Your task to perform on an android device: open chrome and create a bookmark for the current page Image 0: 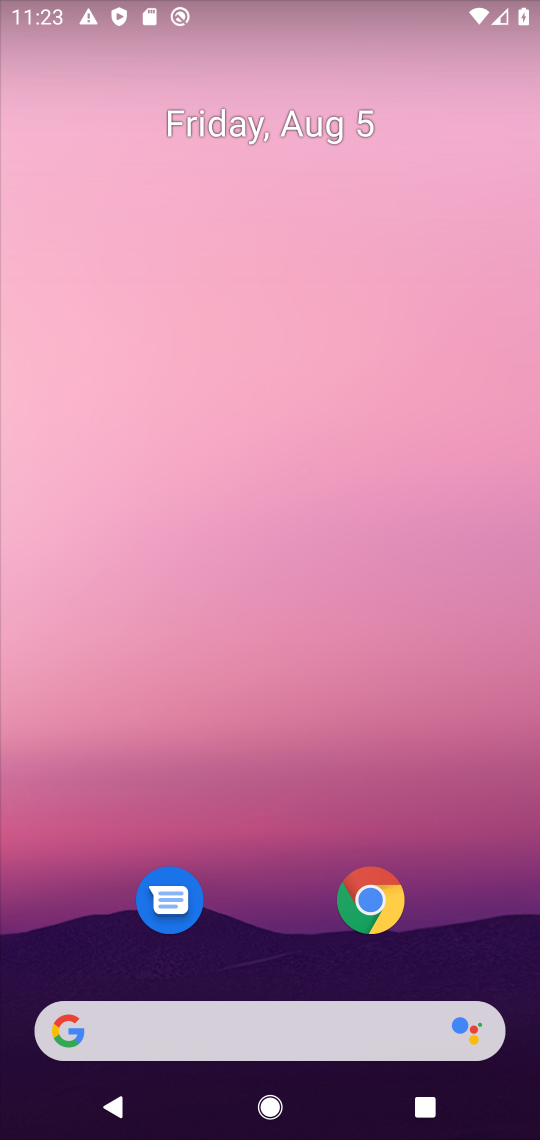
Step 0: drag from (254, 854) to (285, 107)
Your task to perform on an android device: open chrome and create a bookmark for the current page Image 1: 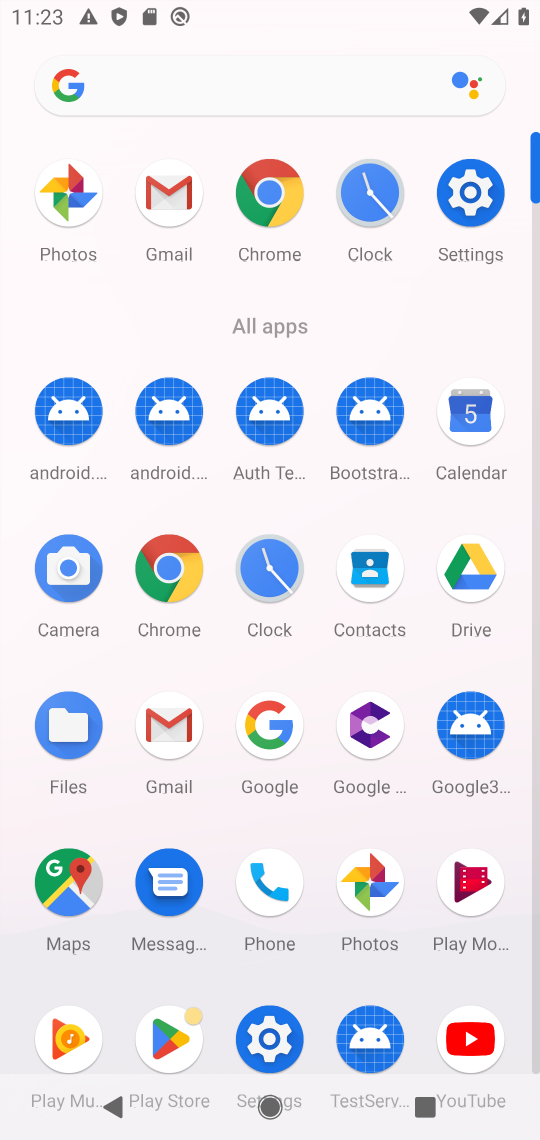
Step 1: click (167, 568)
Your task to perform on an android device: open chrome and create a bookmark for the current page Image 2: 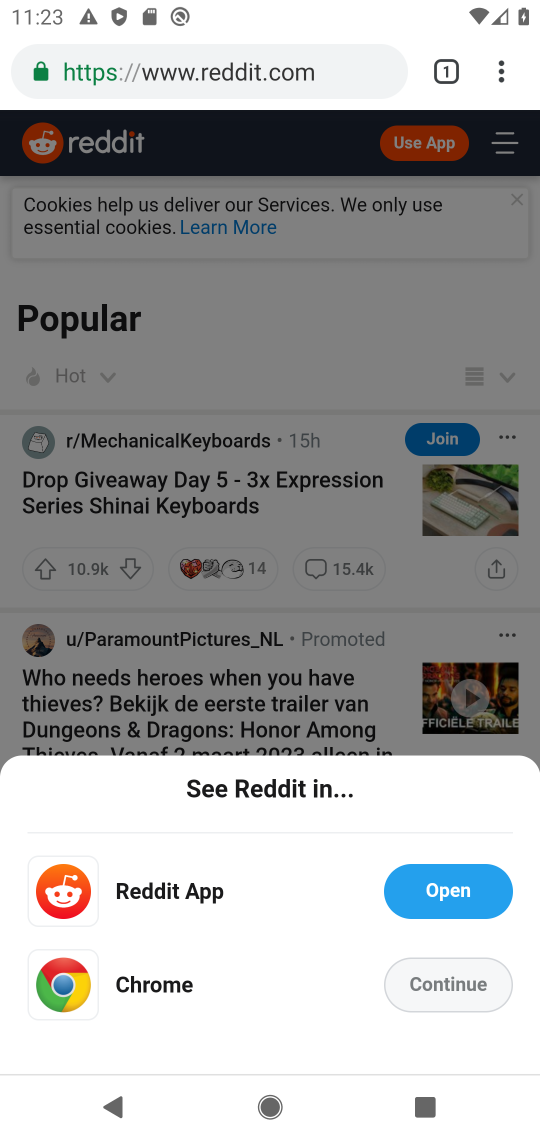
Step 2: click (498, 82)
Your task to perform on an android device: open chrome and create a bookmark for the current page Image 3: 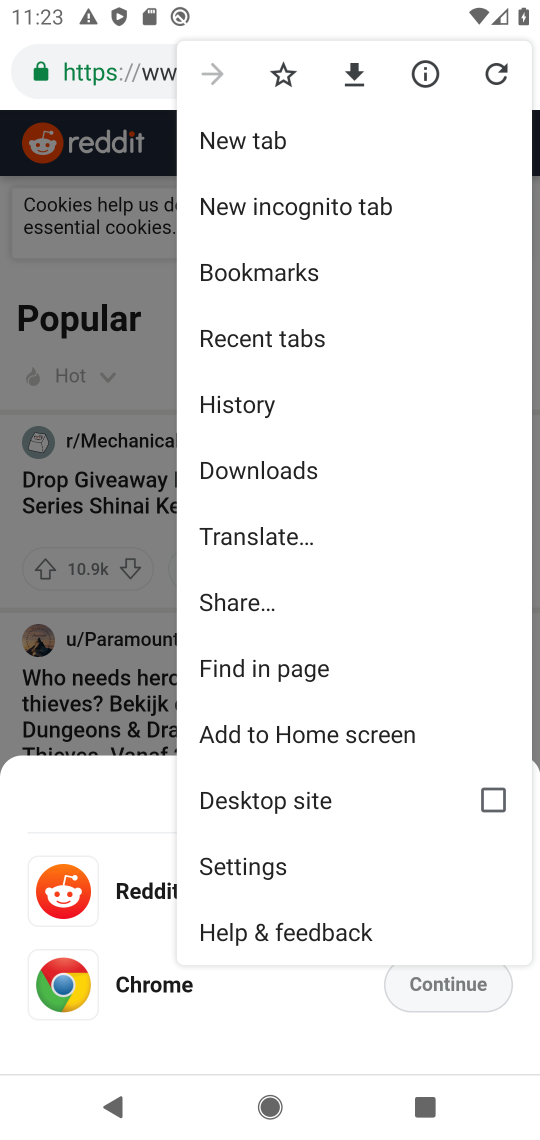
Step 3: click (275, 69)
Your task to perform on an android device: open chrome and create a bookmark for the current page Image 4: 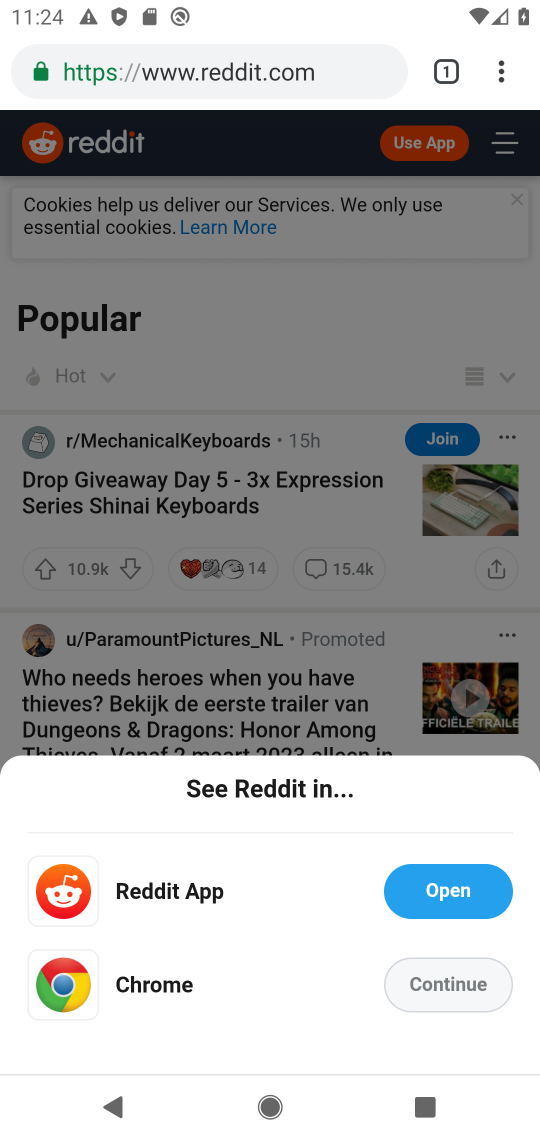
Step 4: task complete